Your task to perform on an android device: turn on bluetooth scan Image 0: 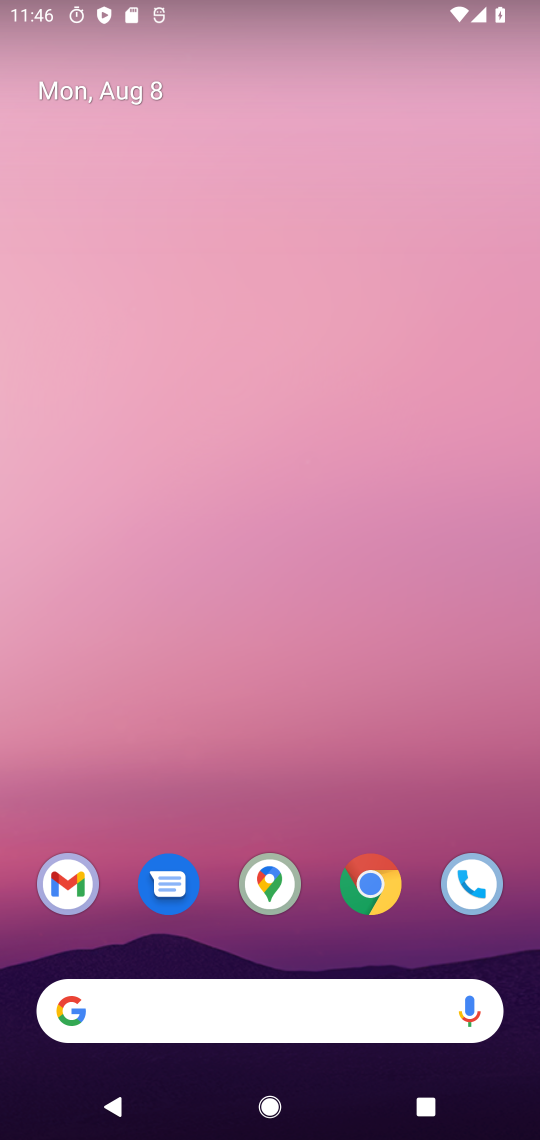
Step 0: drag from (230, 922) to (331, 93)
Your task to perform on an android device: turn on bluetooth scan Image 1: 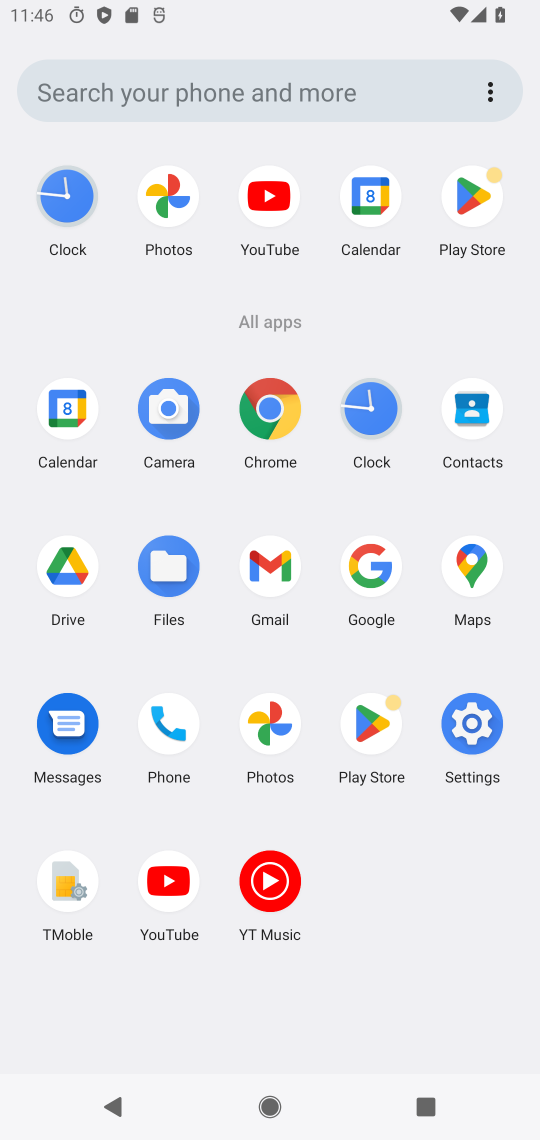
Step 1: click (470, 718)
Your task to perform on an android device: turn on bluetooth scan Image 2: 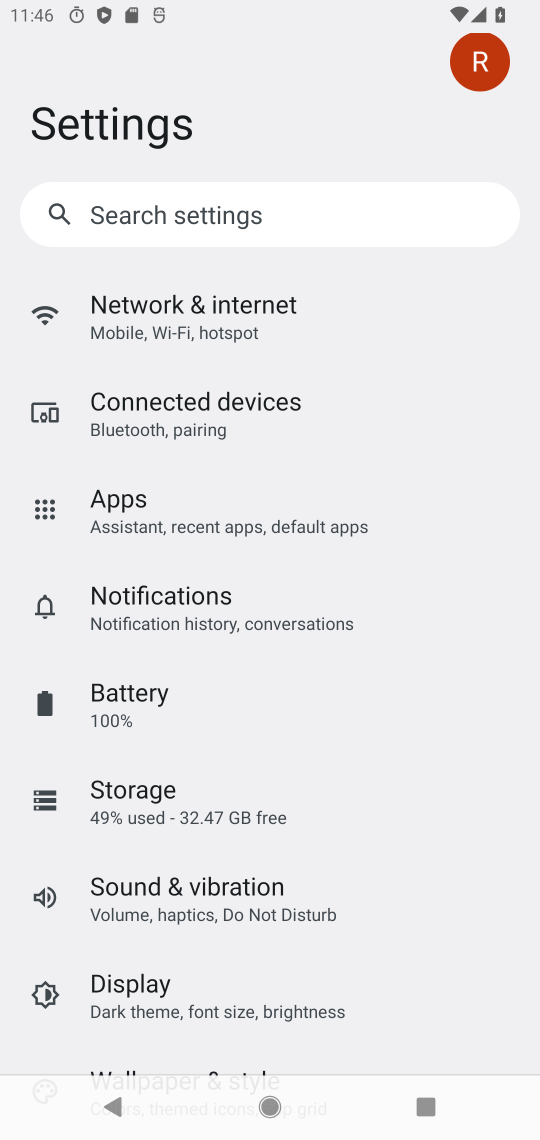
Step 2: drag from (200, 902) to (229, 412)
Your task to perform on an android device: turn on bluetooth scan Image 3: 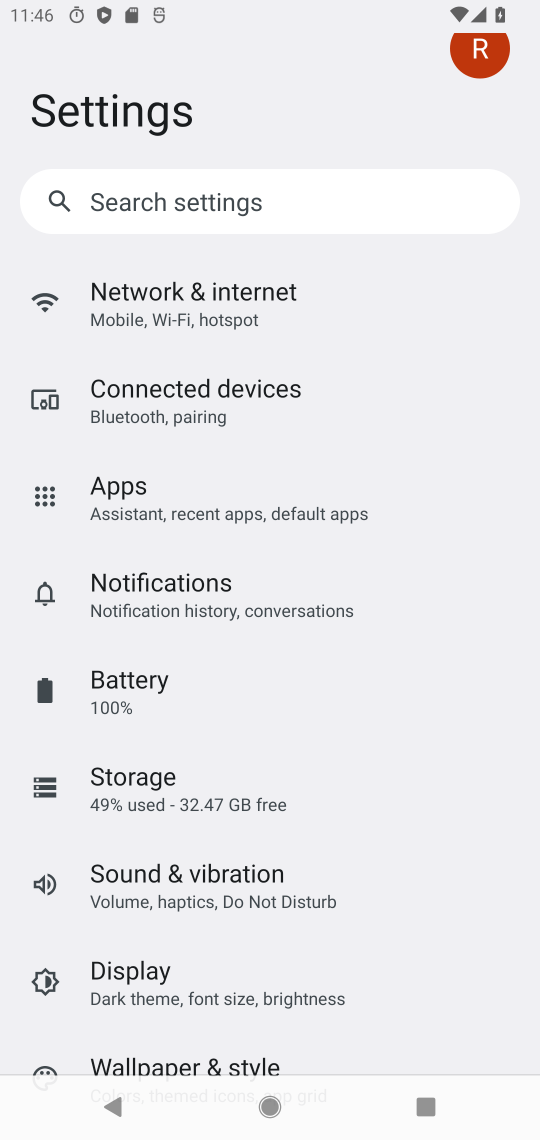
Step 3: drag from (156, 992) to (250, 360)
Your task to perform on an android device: turn on bluetooth scan Image 4: 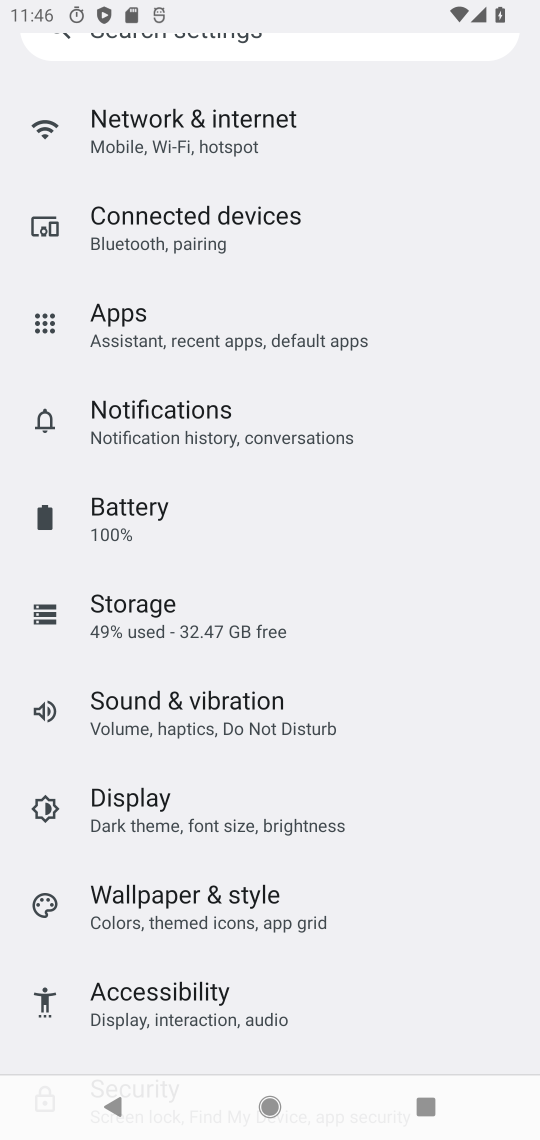
Step 4: drag from (196, 931) to (248, 309)
Your task to perform on an android device: turn on bluetooth scan Image 5: 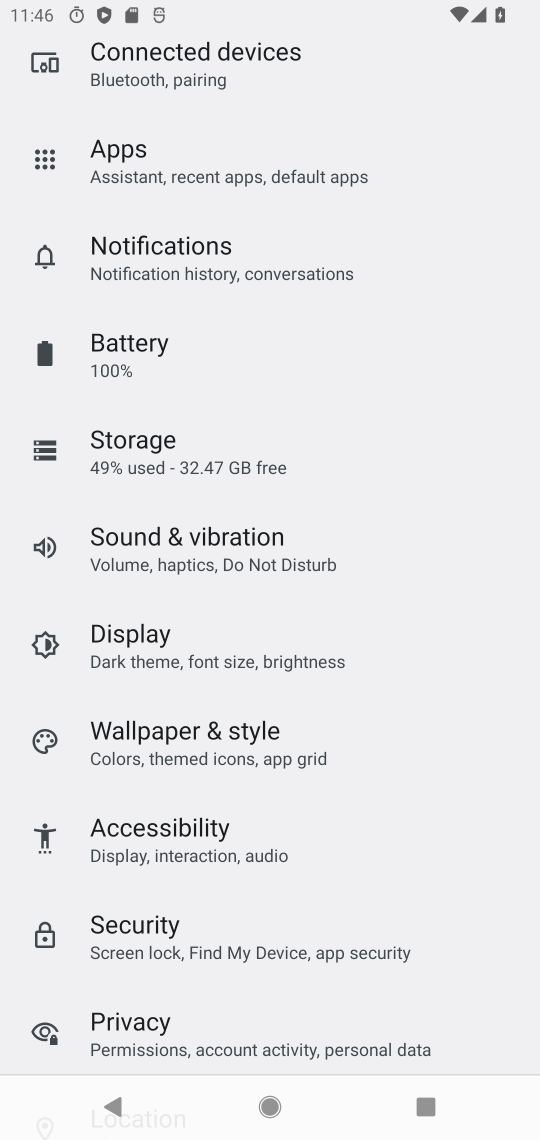
Step 5: drag from (191, 456) to (196, 358)
Your task to perform on an android device: turn on bluetooth scan Image 6: 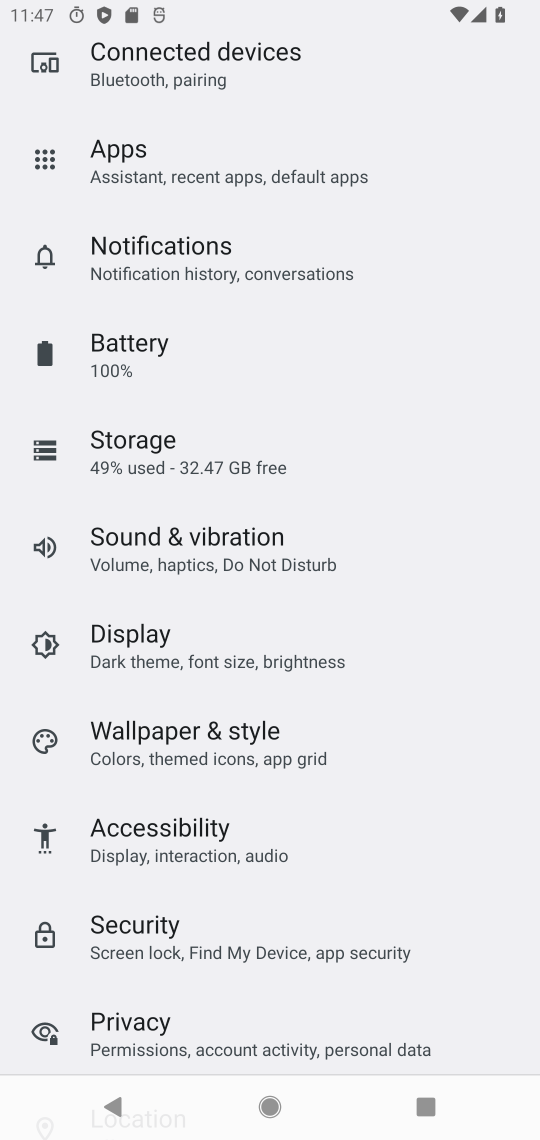
Step 6: click (201, 296)
Your task to perform on an android device: turn on bluetooth scan Image 7: 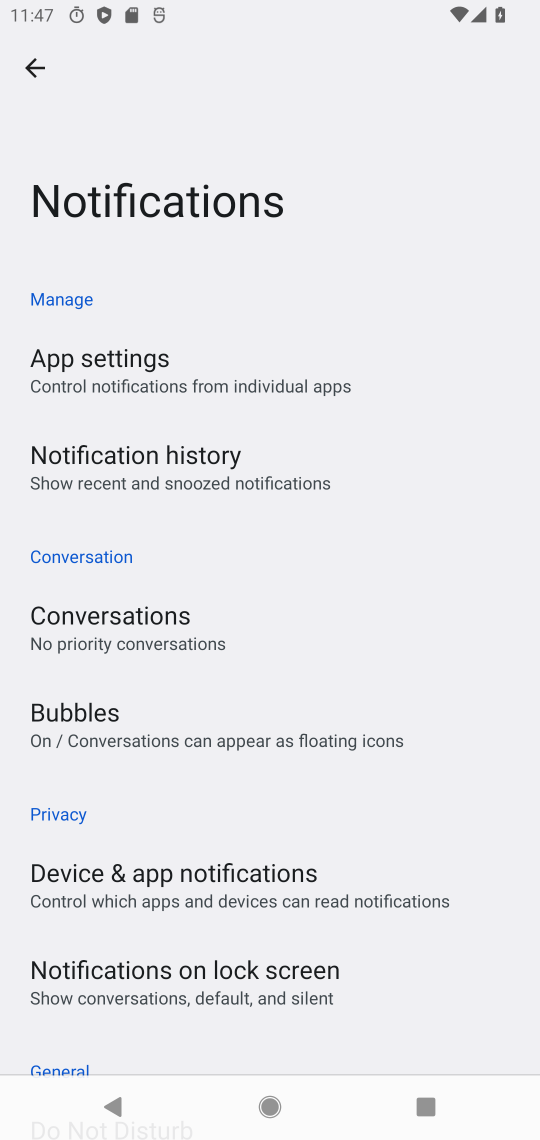
Step 7: click (33, 68)
Your task to perform on an android device: turn on bluetooth scan Image 8: 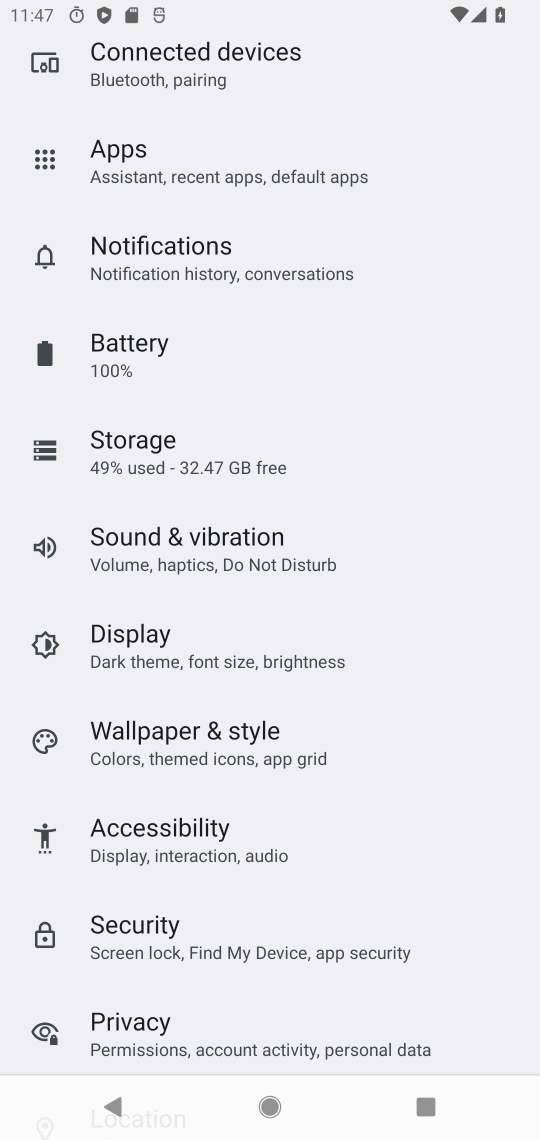
Step 8: drag from (227, 180) to (194, 817)
Your task to perform on an android device: turn on bluetooth scan Image 9: 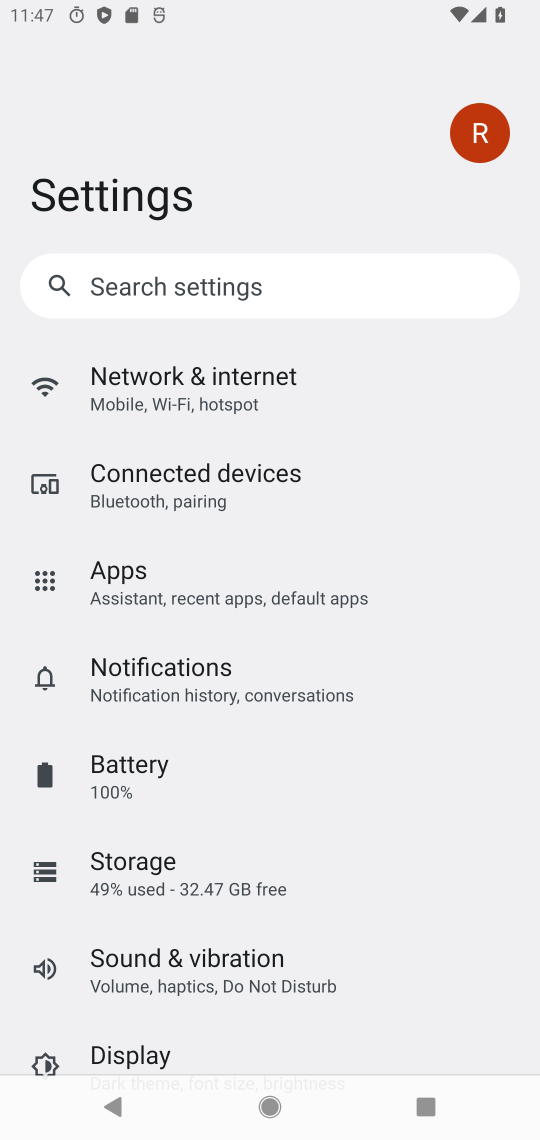
Step 9: drag from (148, 944) to (183, 581)
Your task to perform on an android device: turn on bluetooth scan Image 10: 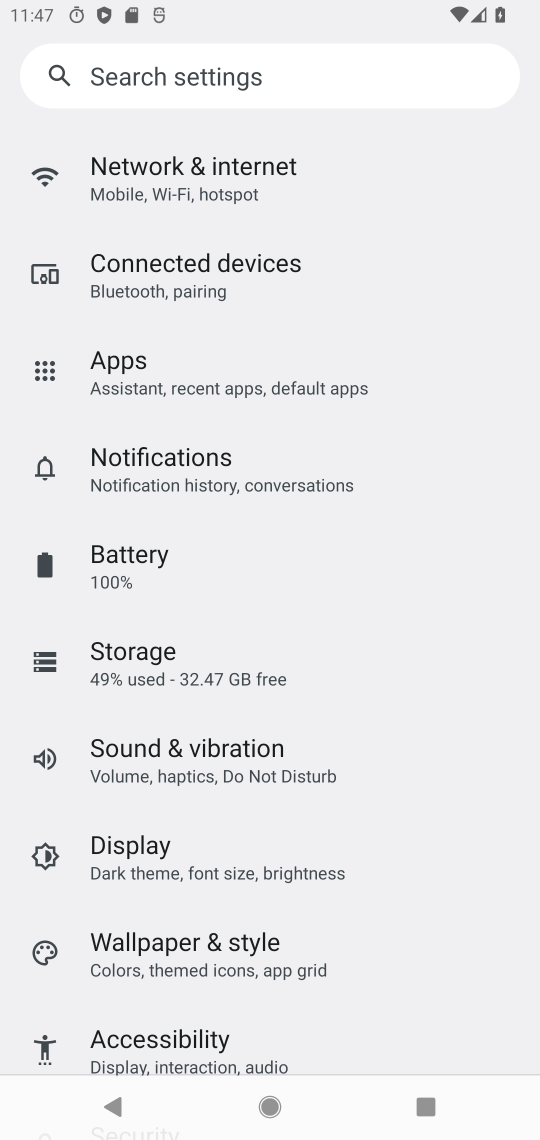
Step 10: drag from (156, 943) to (203, 457)
Your task to perform on an android device: turn on bluetooth scan Image 11: 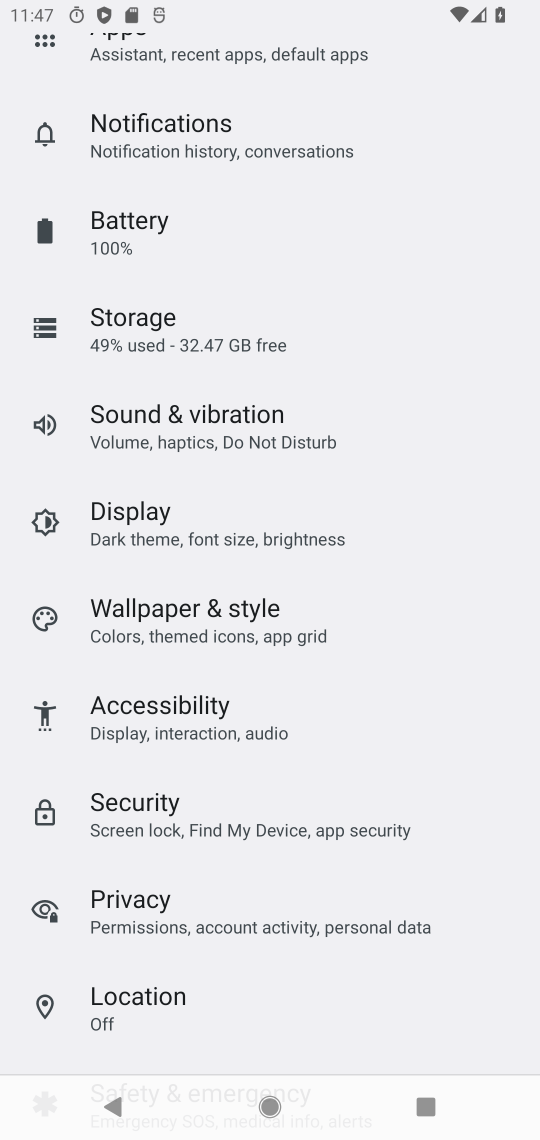
Step 11: click (138, 1009)
Your task to perform on an android device: turn on bluetooth scan Image 12: 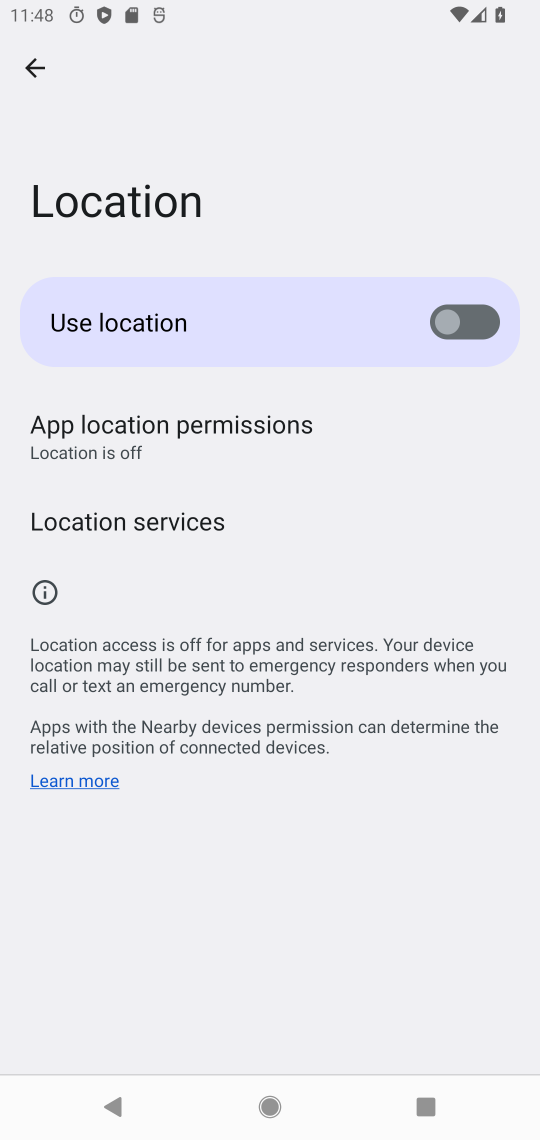
Step 12: click (165, 516)
Your task to perform on an android device: turn on bluetooth scan Image 13: 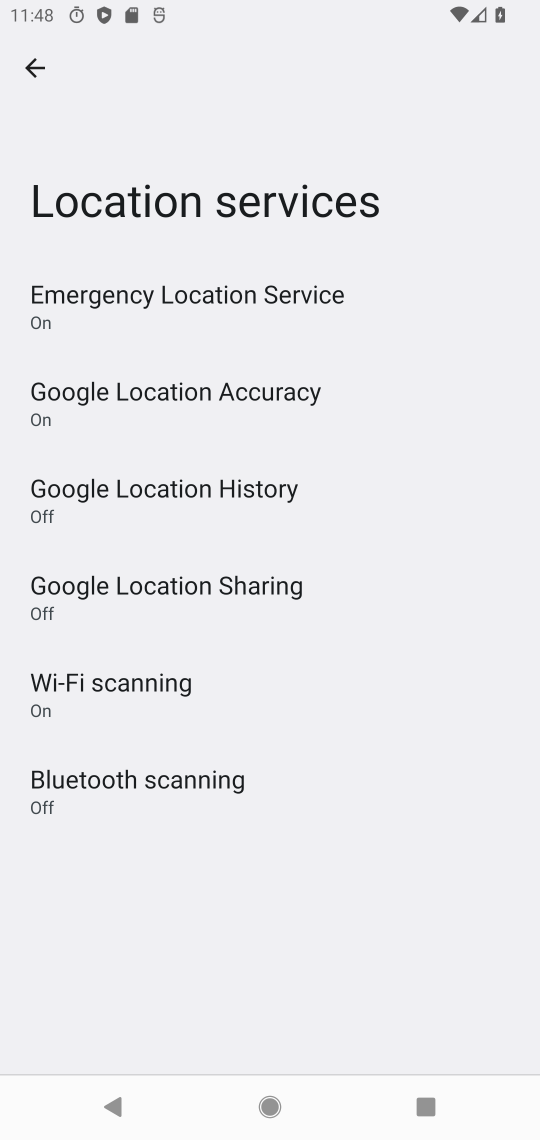
Step 13: click (138, 794)
Your task to perform on an android device: turn on bluetooth scan Image 14: 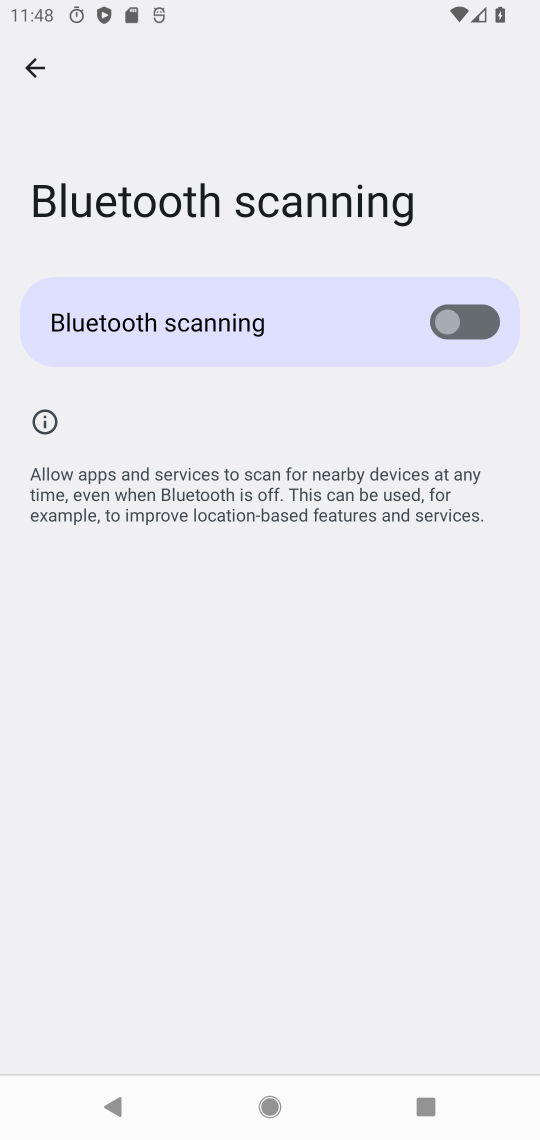
Step 14: click (490, 334)
Your task to perform on an android device: turn on bluetooth scan Image 15: 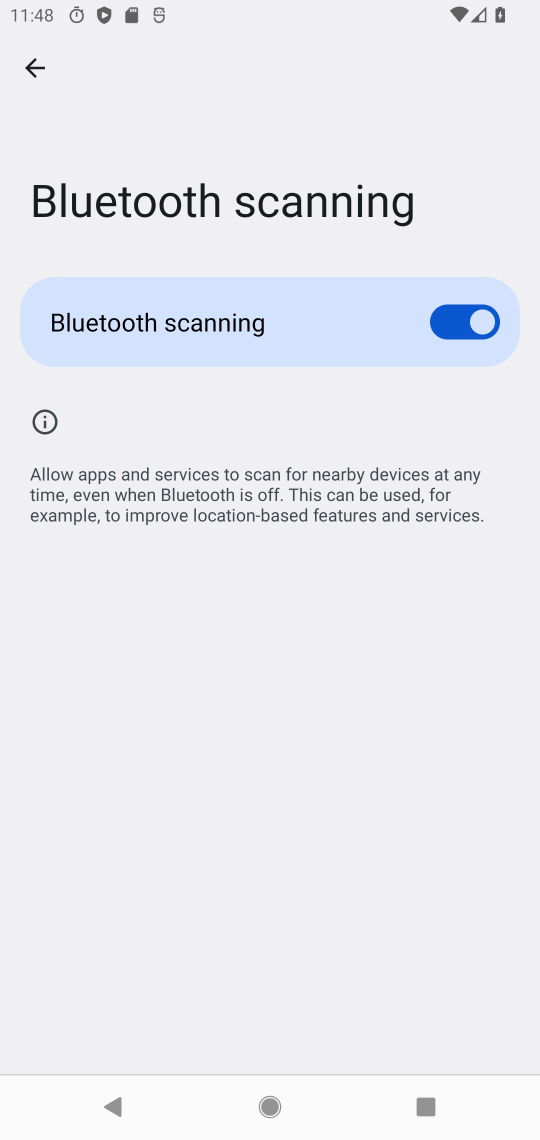
Step 15: task complete